Your task to perform on an android device: Find coffee shops on Maps Image 0: 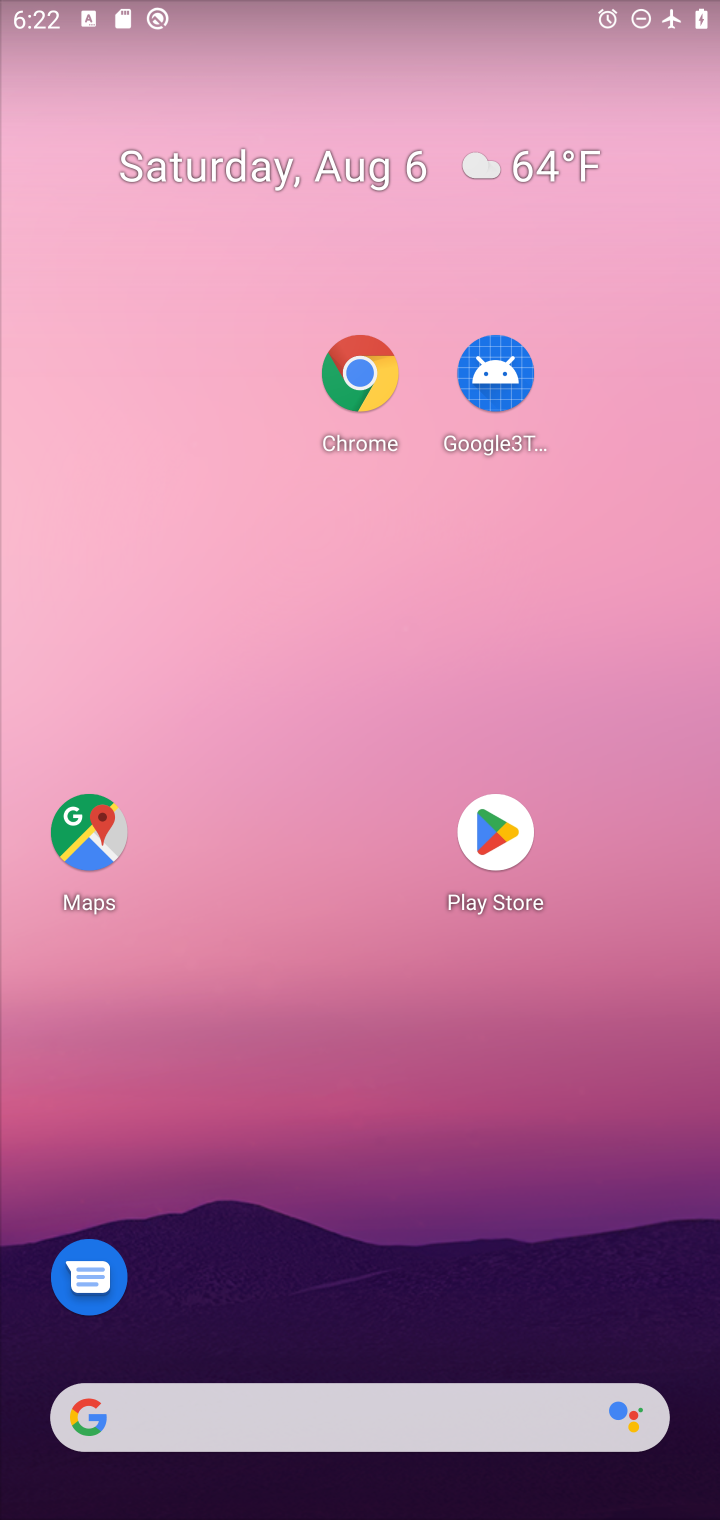
Step 0: drag from (283, 1410) to (521, 10)
Your task to perform on an android device: Find coffee shops on Maps Image 1: 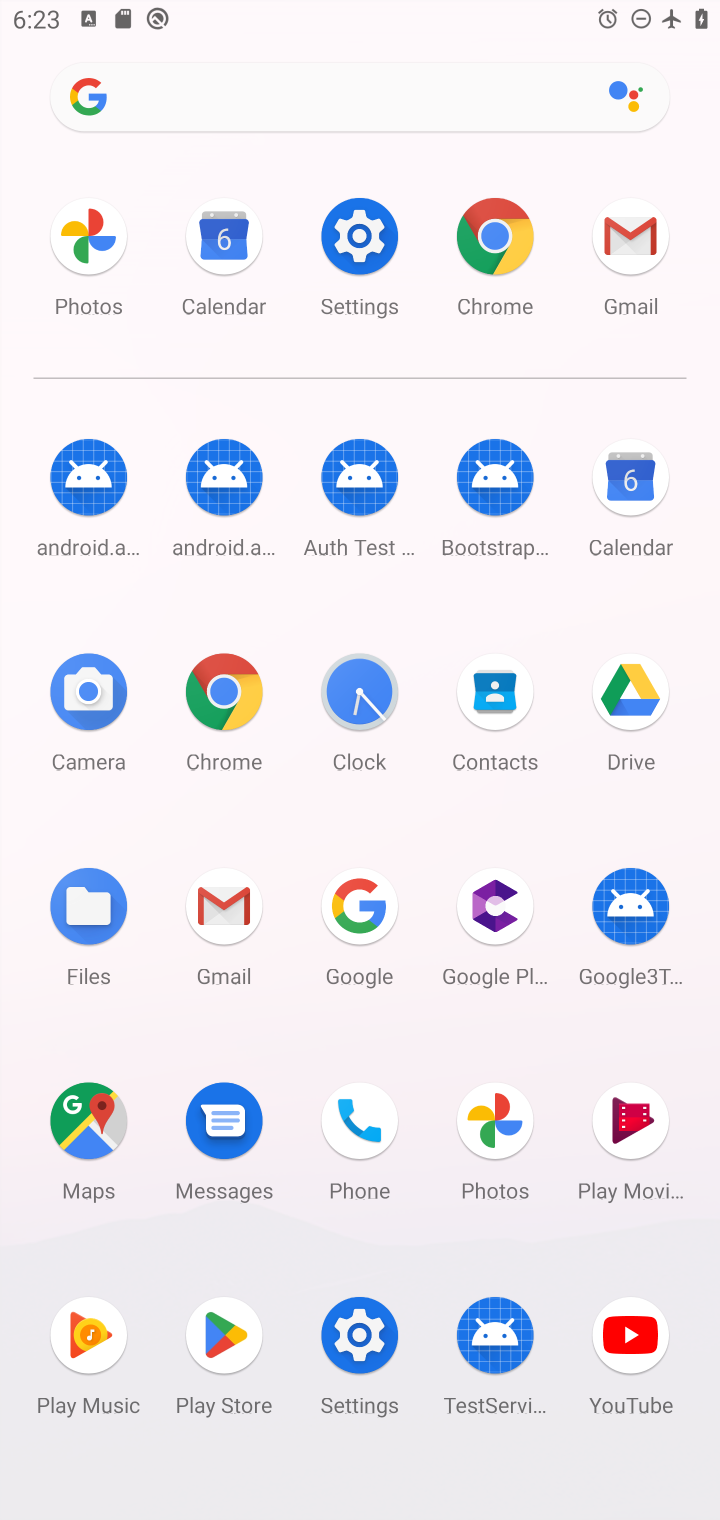
Step 1: click (92, 1121)
Your task to perform on an android device: Find coffee shops on Maps Image 2: 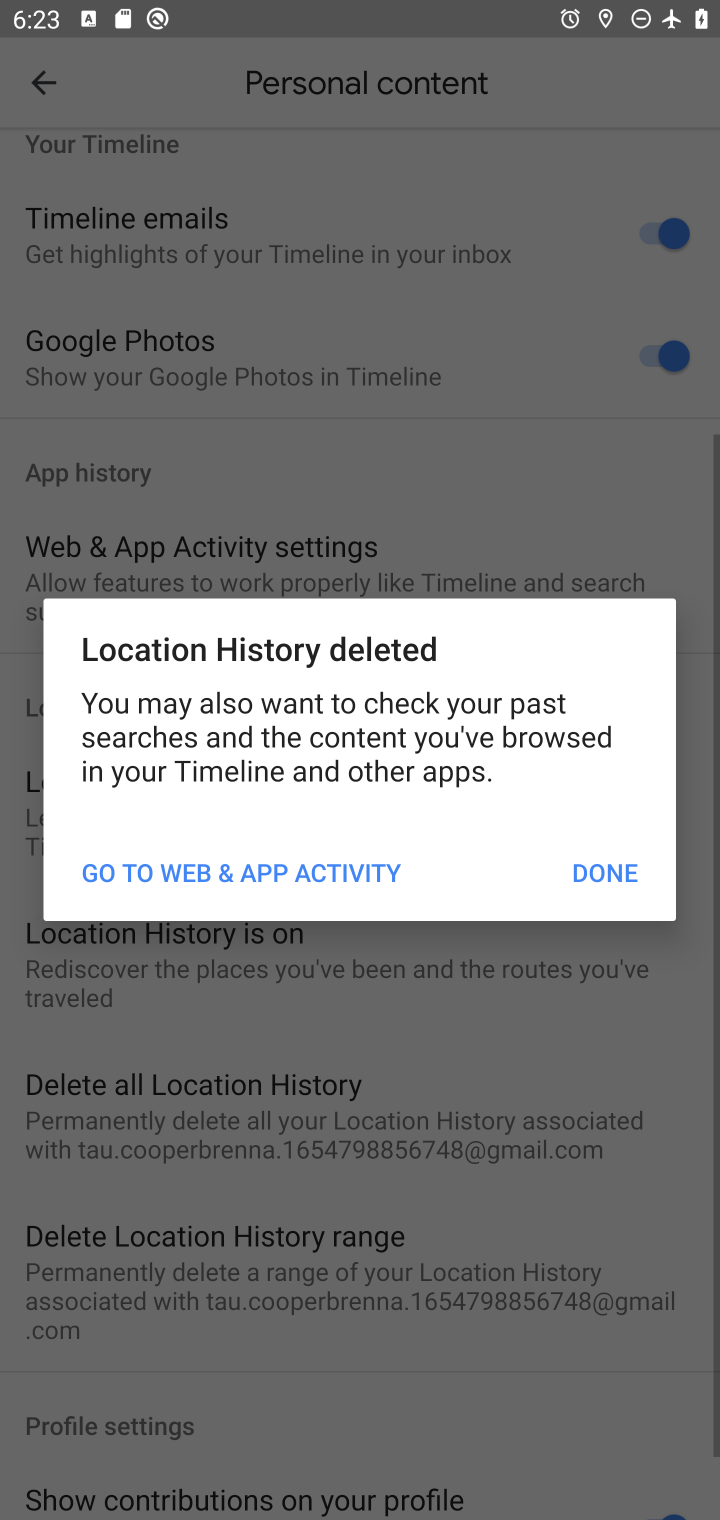
Step 2: press back button
Your task to perform on an android device: Find coffee shops on Maps Image 3: 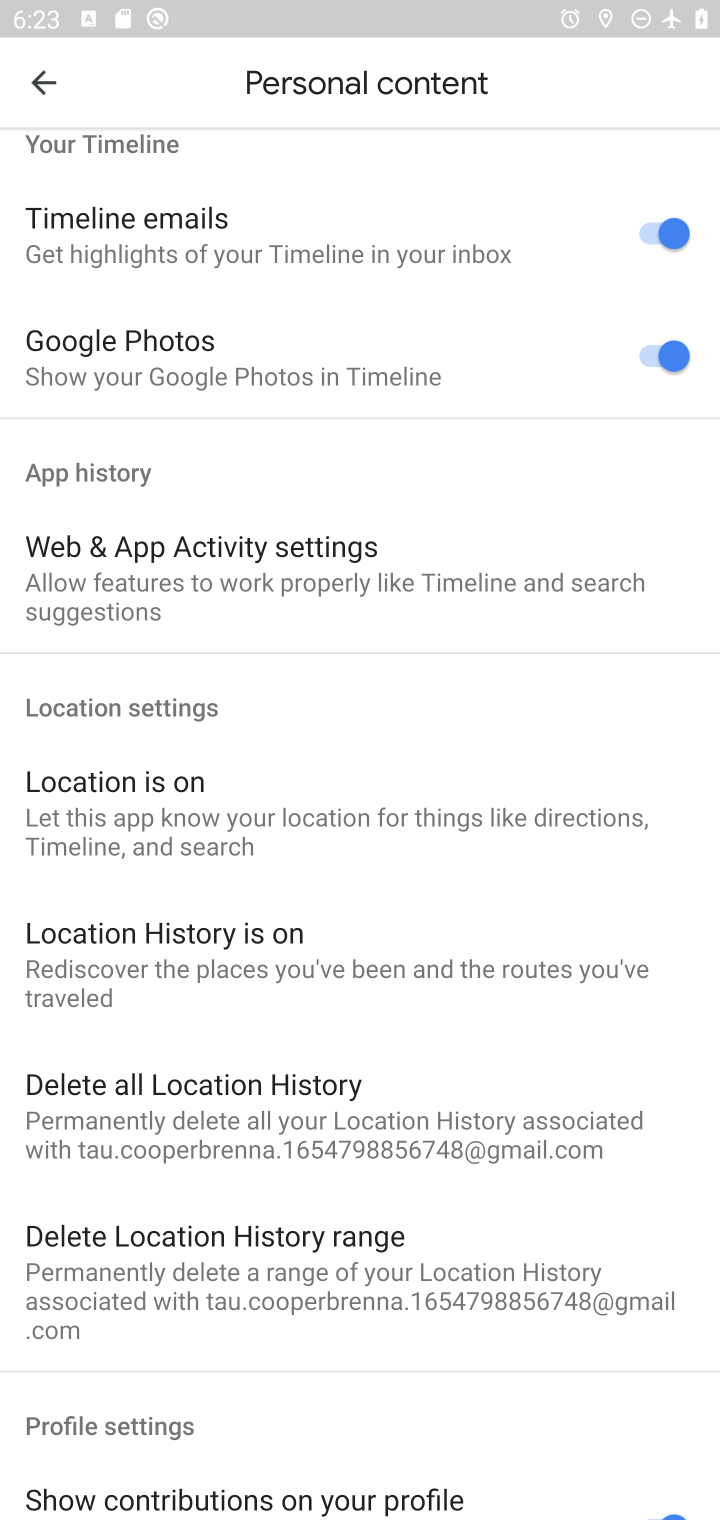
Step 3: press back button
Your task to perform on an android device: Find coffee shops on Maps Image 4: 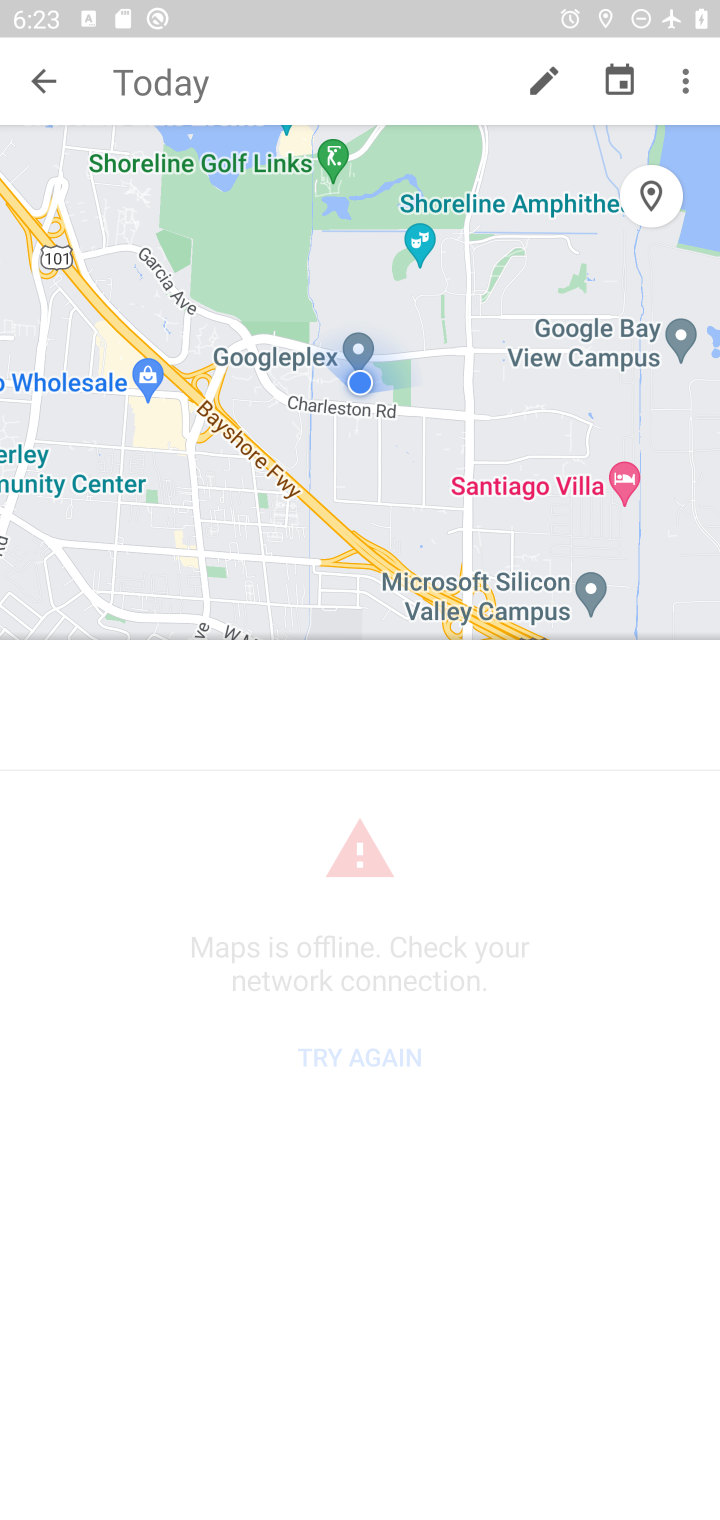
Step 4: press back button
Your task to perform on an android device: Find coffee shops on Maps Image 5: 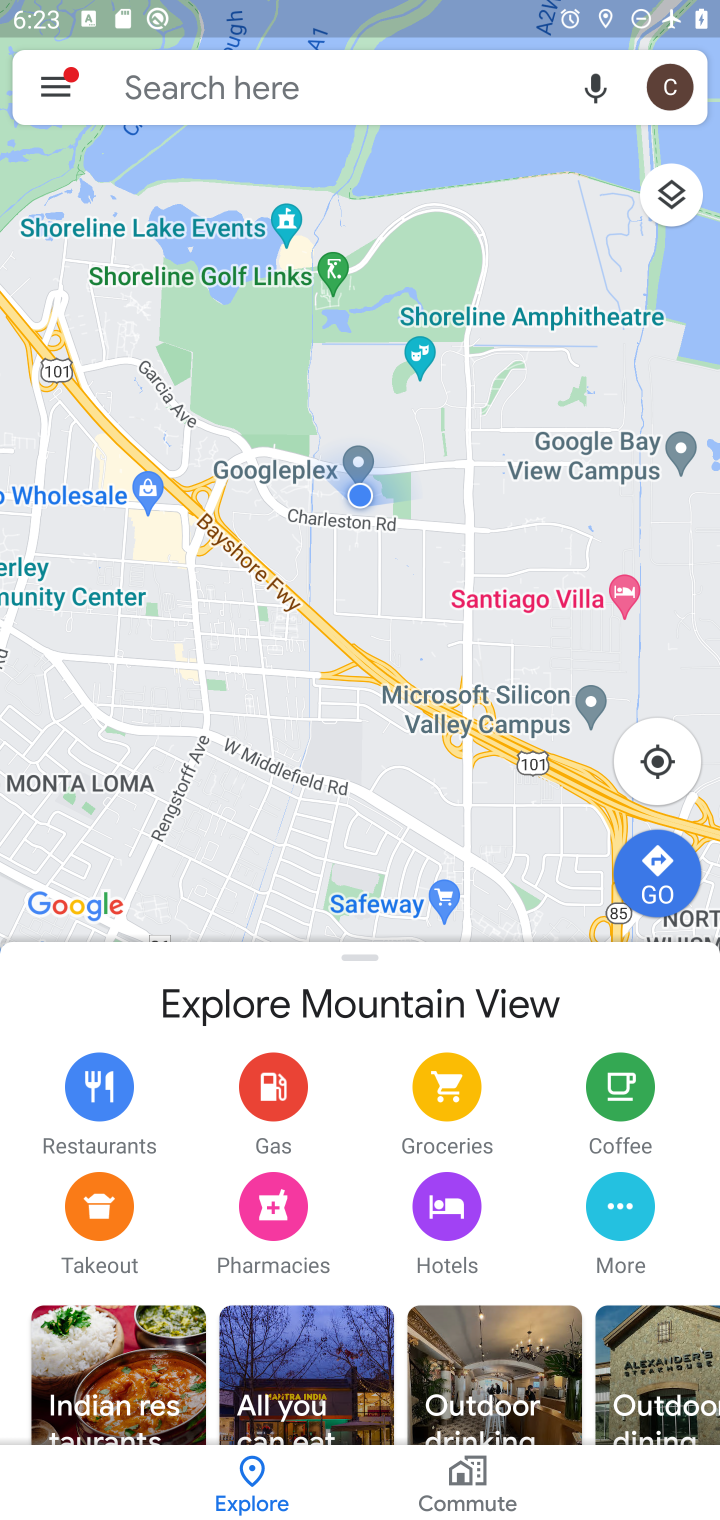
Step 5: click (346, 74)
Your task to perform on an android device: Find coffee shops on Maps Image 6: 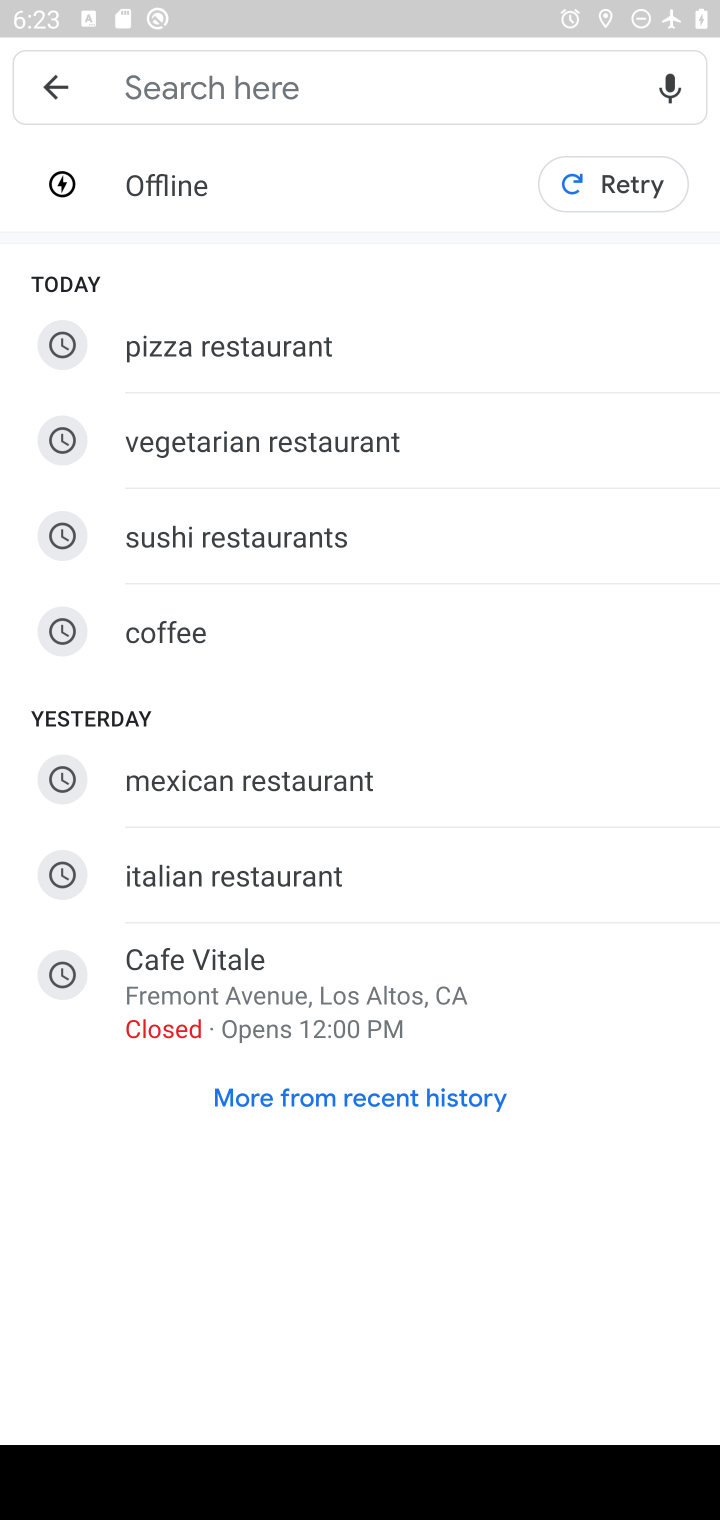
Step 6: type "coffee shops"
Your task to perform on an android device: Find coffee shops on Maps Image 7: 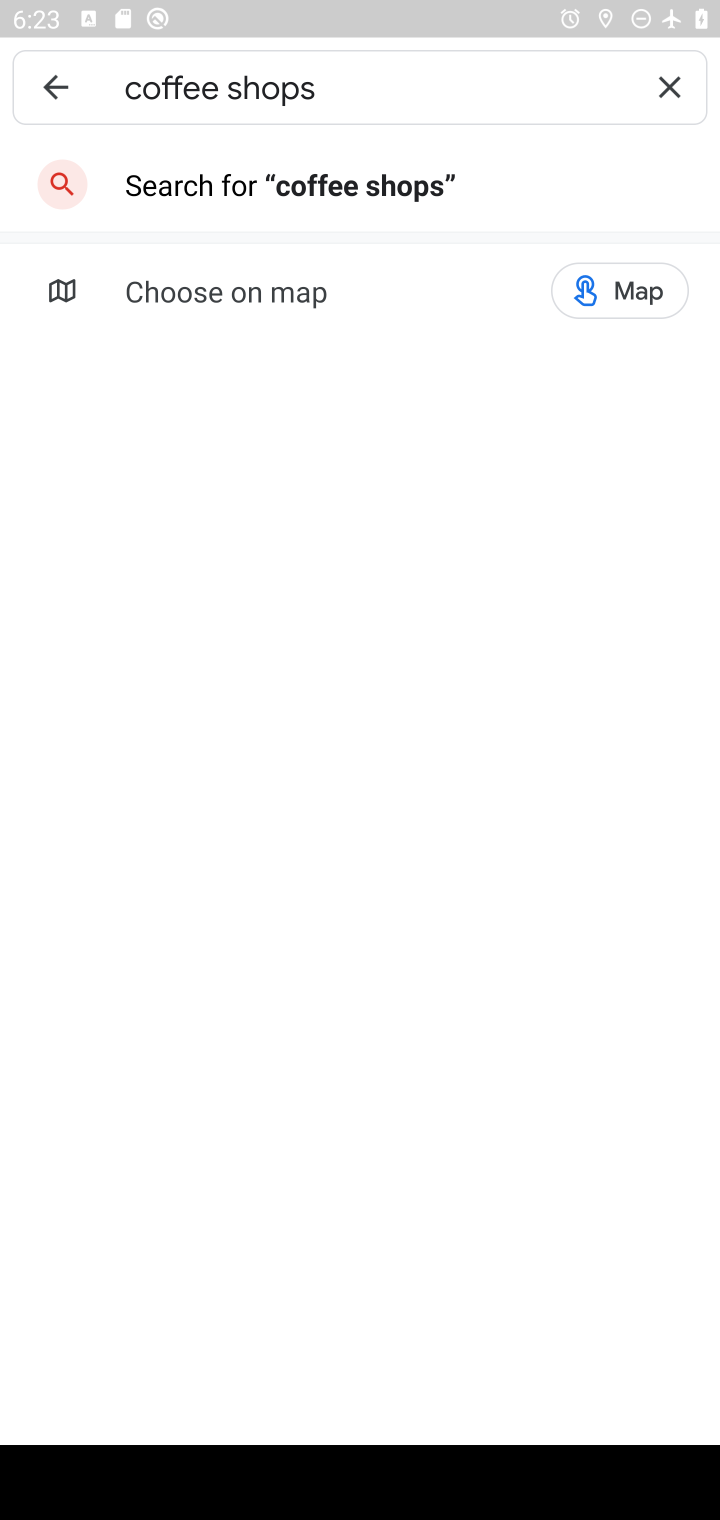
Step 7: task complete